Your task to perform on an android device: Search for flights from Tokyo to Seoul Image 0: 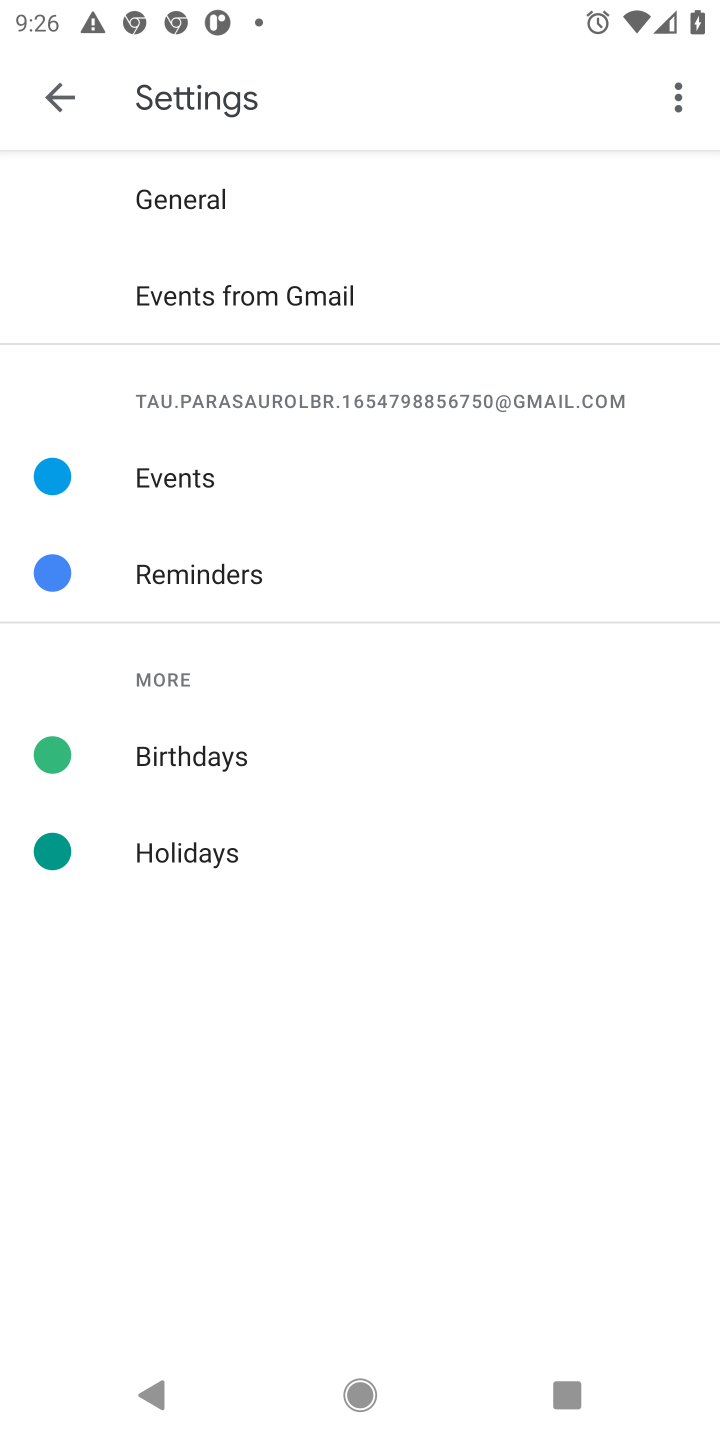
Step 0: press home button
Your task to perform on an android device: Search for flights from Tokyo to Seoul Image 1: 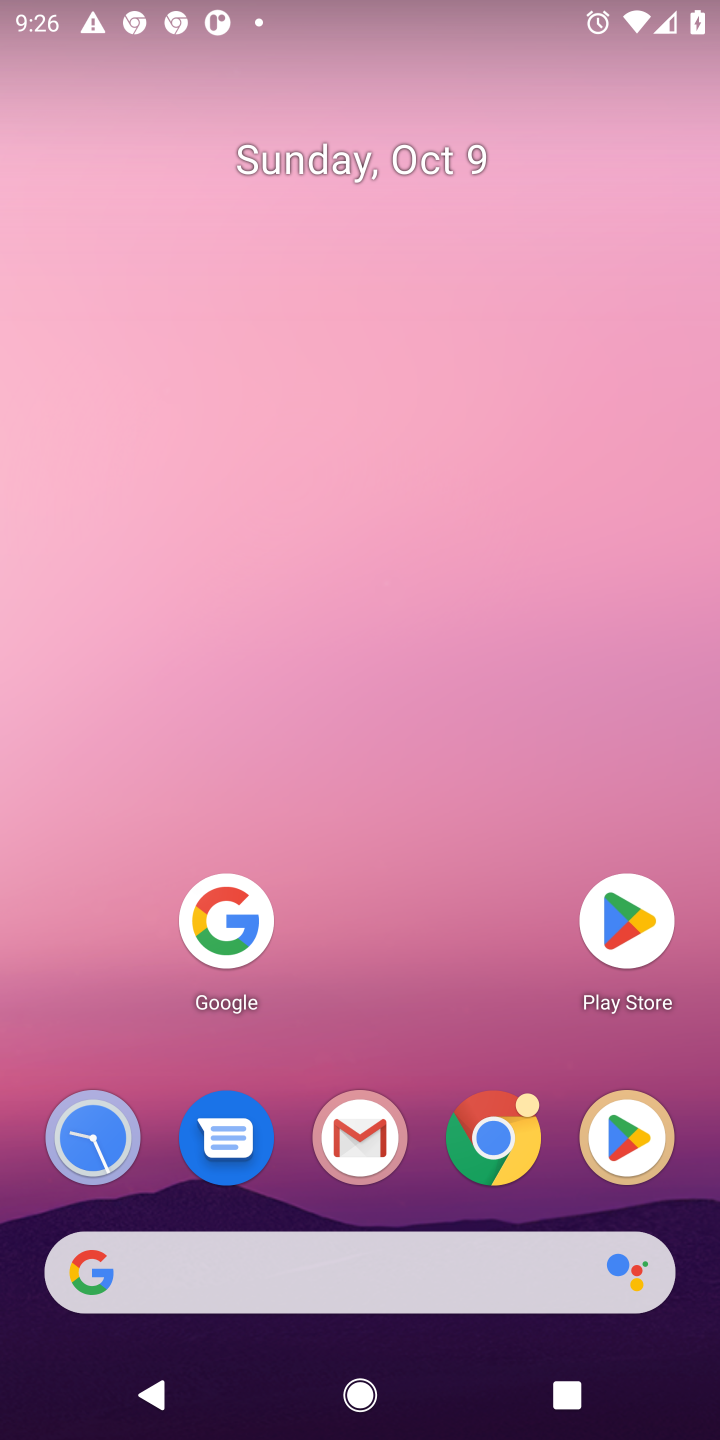
Step 1: click (235, 914)
Your task to perform on an android device: Search for flights from Tokyo to Seoul Image 2: 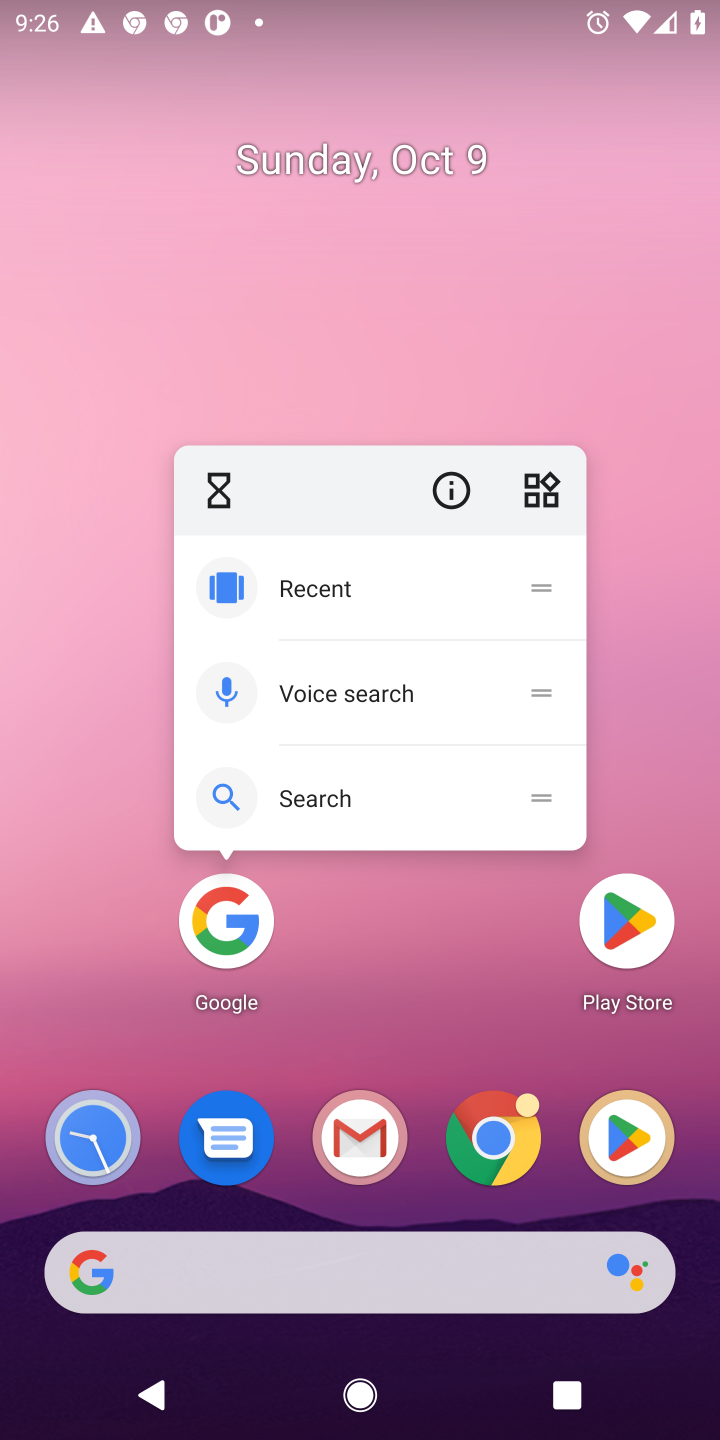
Step 2: click (245, 914)
Your task to perform on an android device: Search for flights from Tokyo to Seoul Image 3: 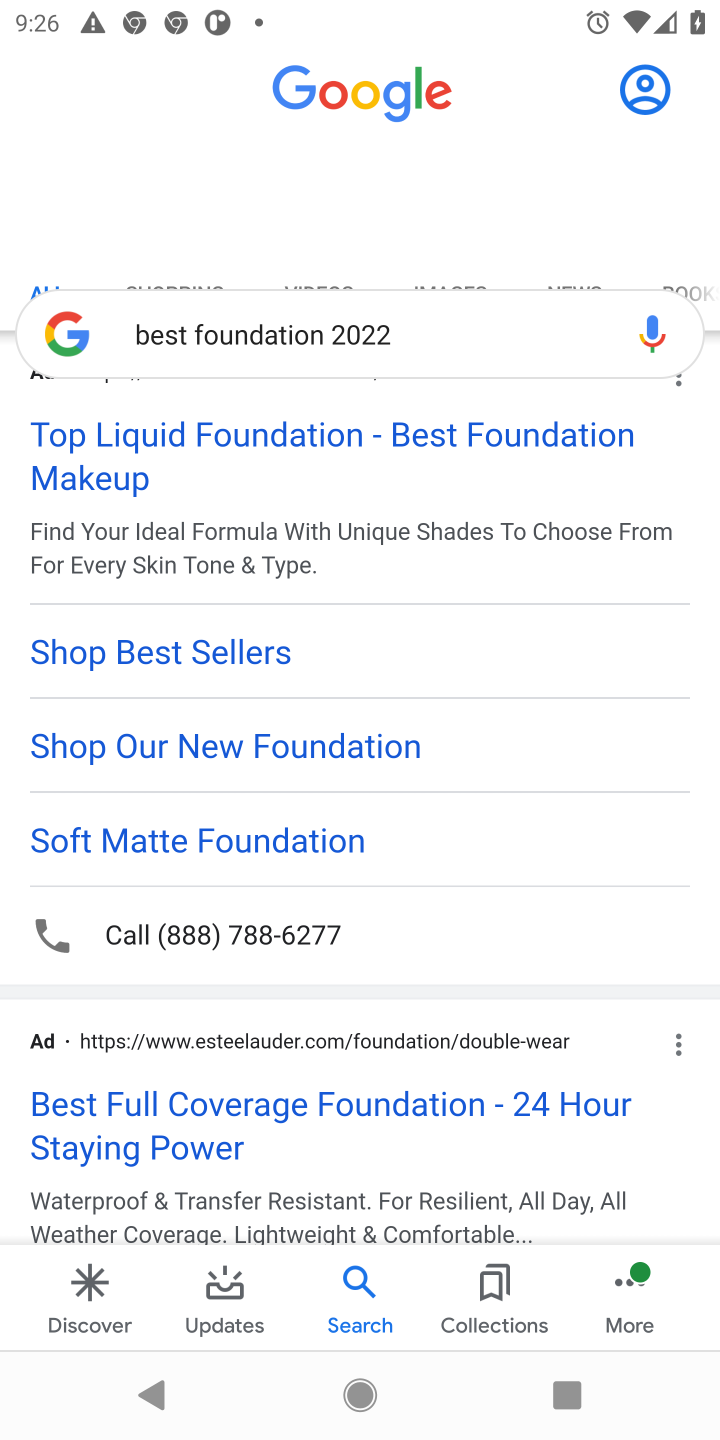
Step 3: click (414, 316)
Your task to perform on an android device: Search for flights from Tokyo to Seoul Image 4: 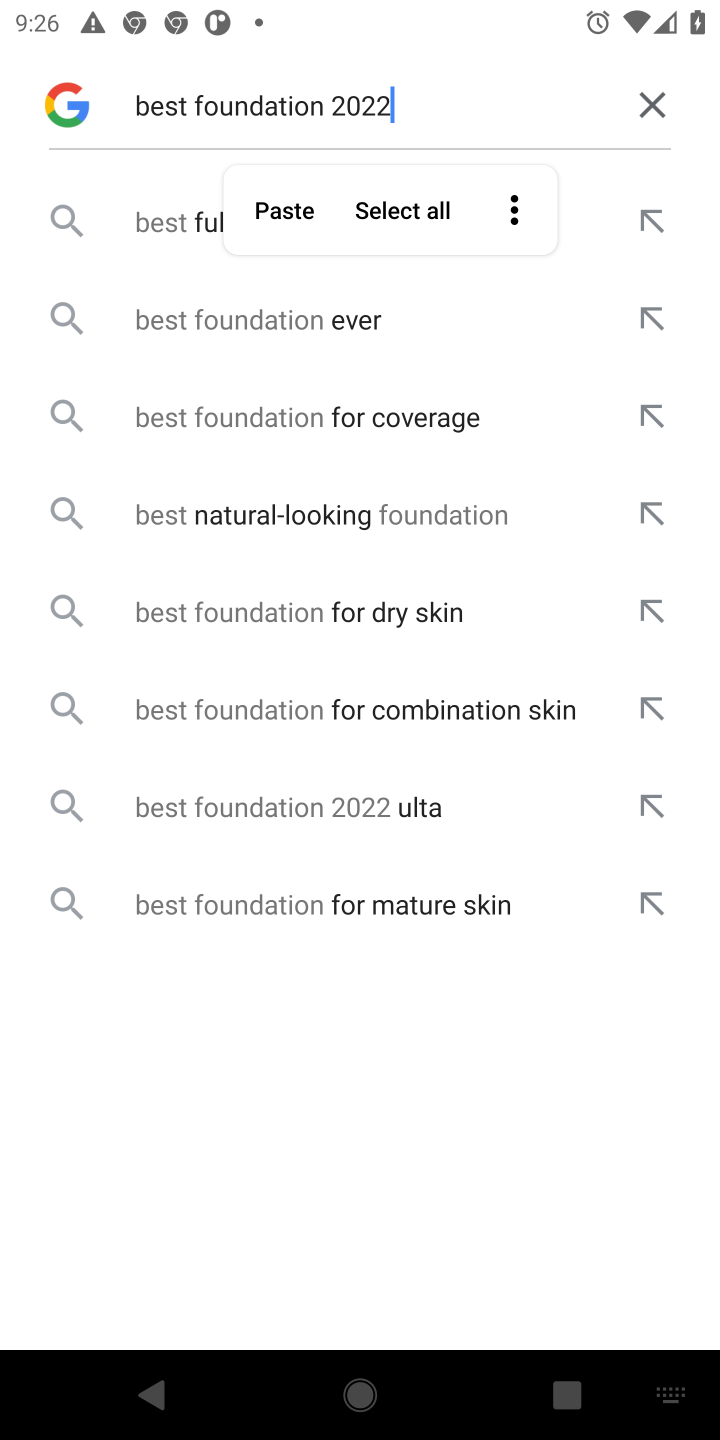
Step 4: click (636, 108)
Your task to perform on an android device: Search for flights from Tokyo to Seoul Image 5: 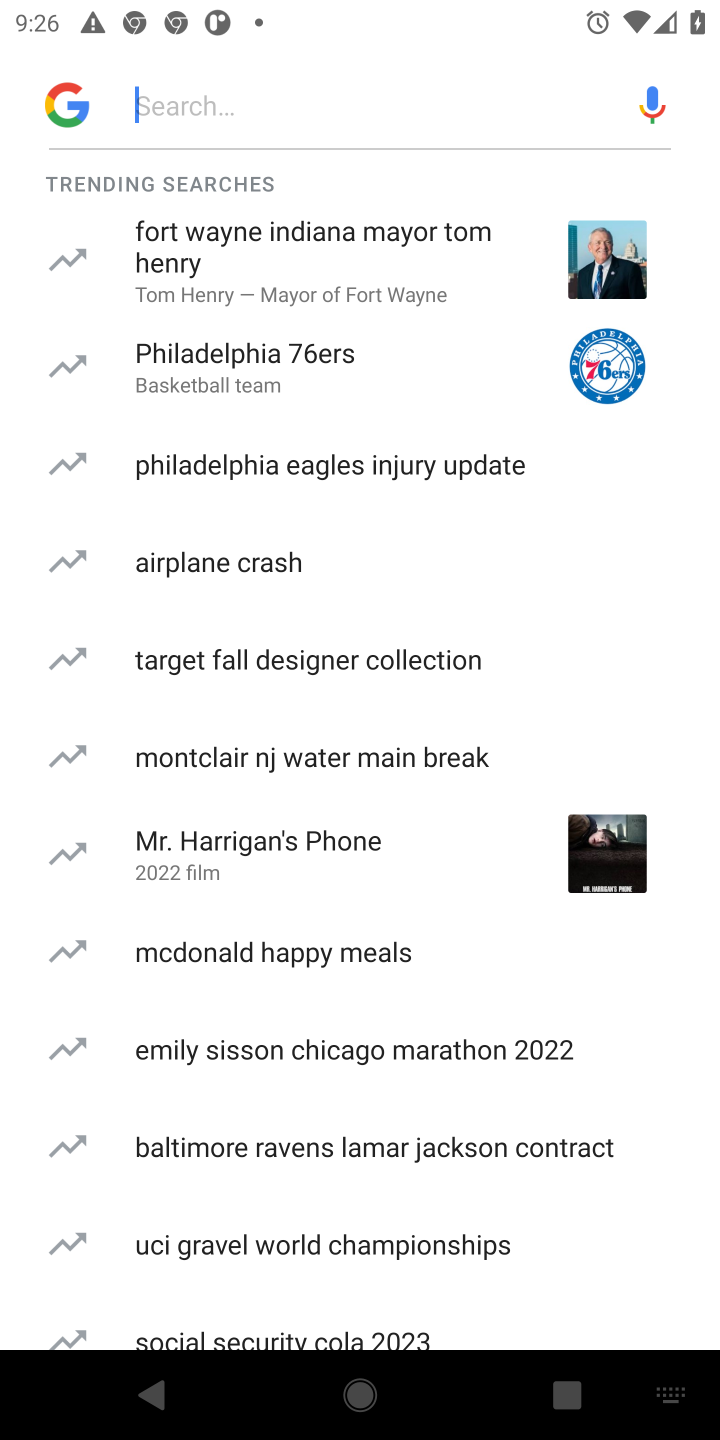
Step 5: click (349, 75)
Your task to perform on an android device: Search for flights from Tokyo to Seoul Image 6: 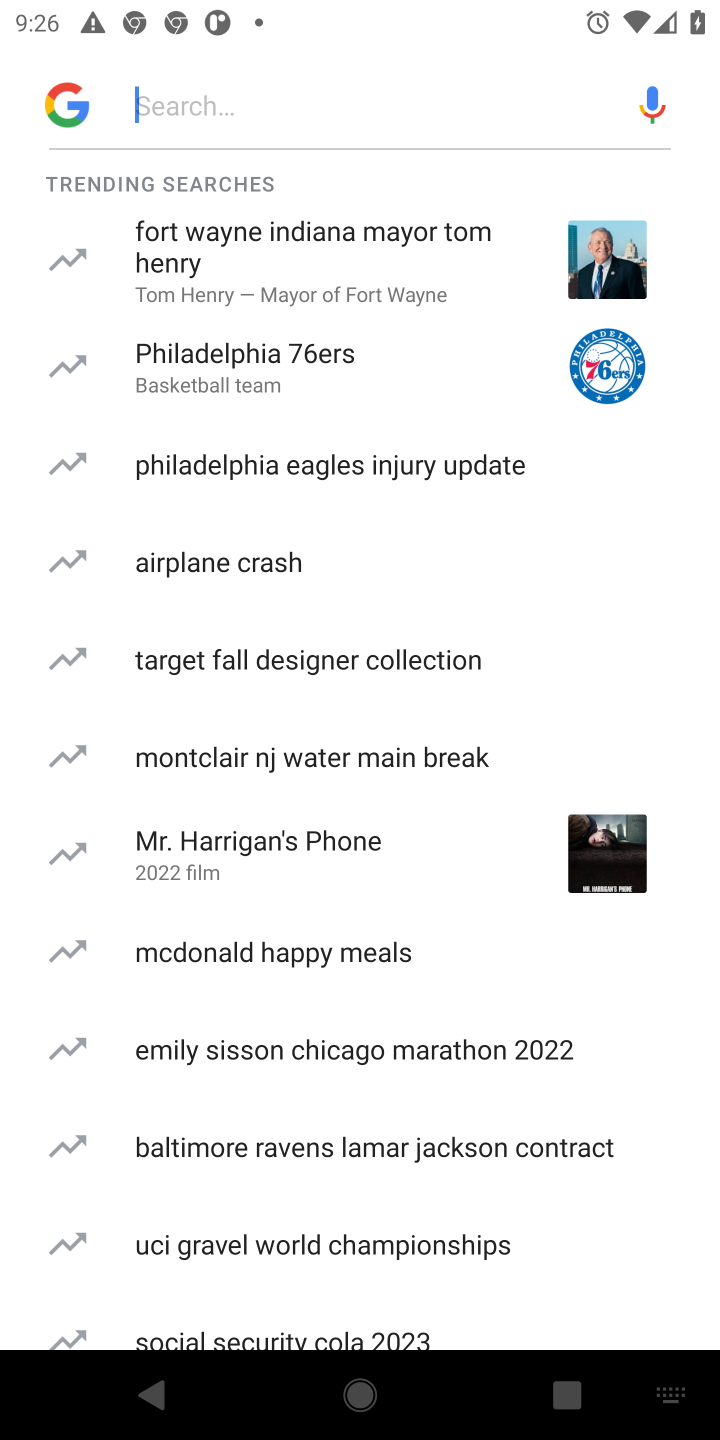
Step 6: type "Search for flights from Tokyo to Seoul "
Your task to perform on an android device: Search for flights from Tokyo to Seoul Image 7: 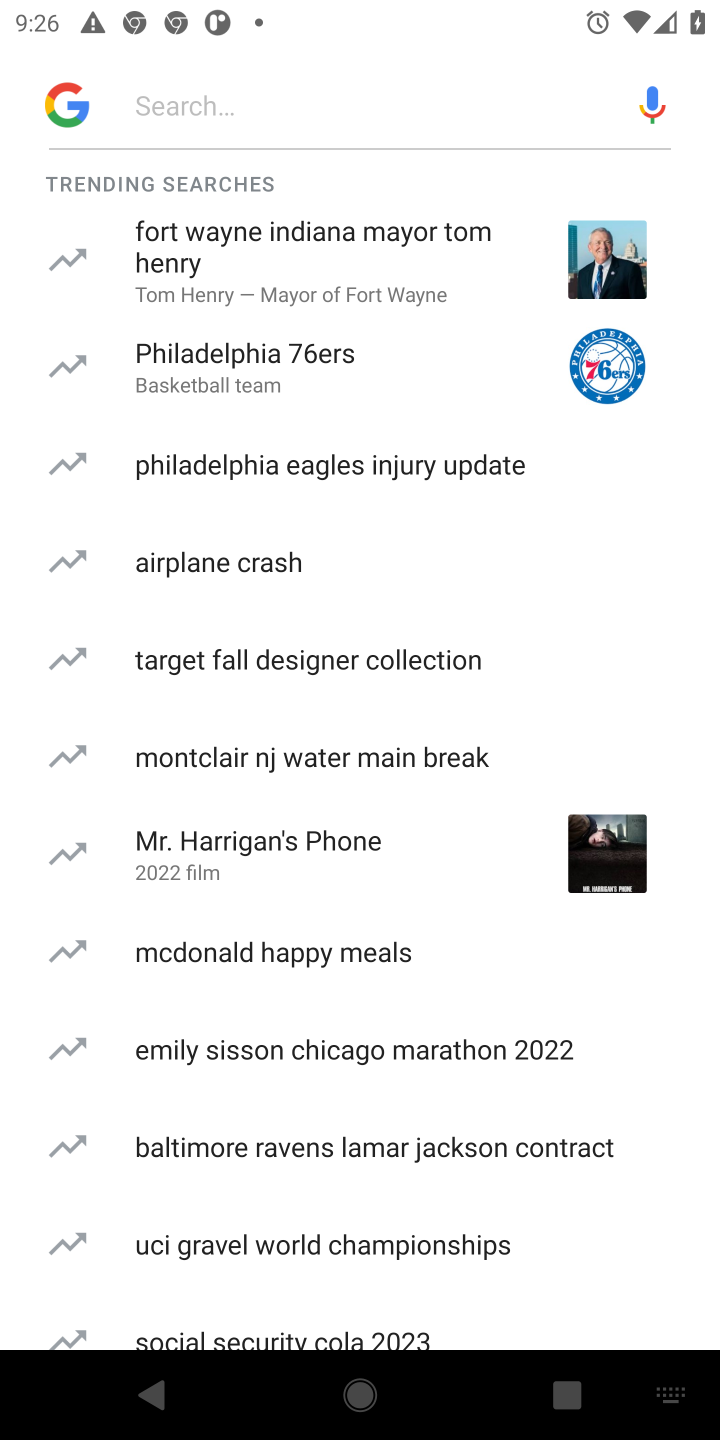
Step 7: click (288, 89)
Your task to perform on an android device: Search for flights from Tokyo to Seoul Image 8: 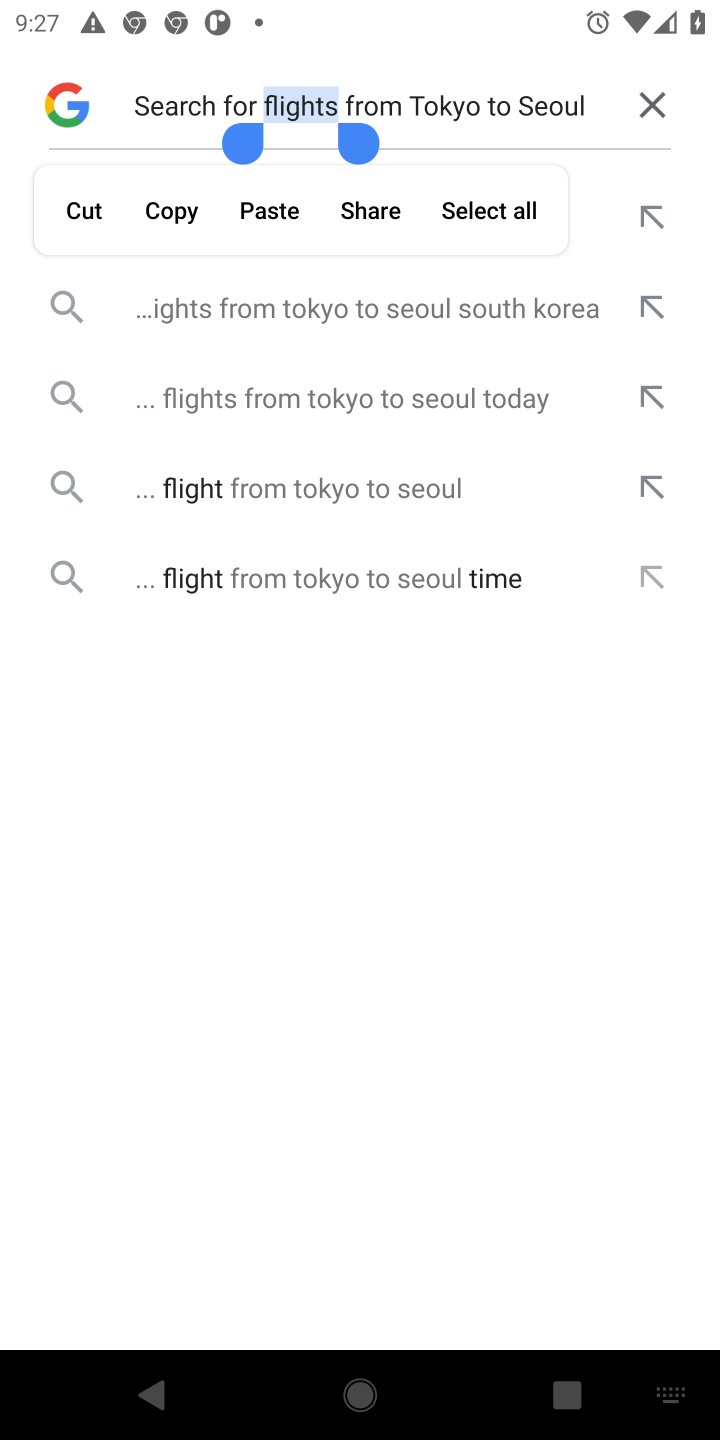
Step 8: click (249, 317)
Your task to perform on an android device: Search for flights from Tokyo to Seoul Image 9: 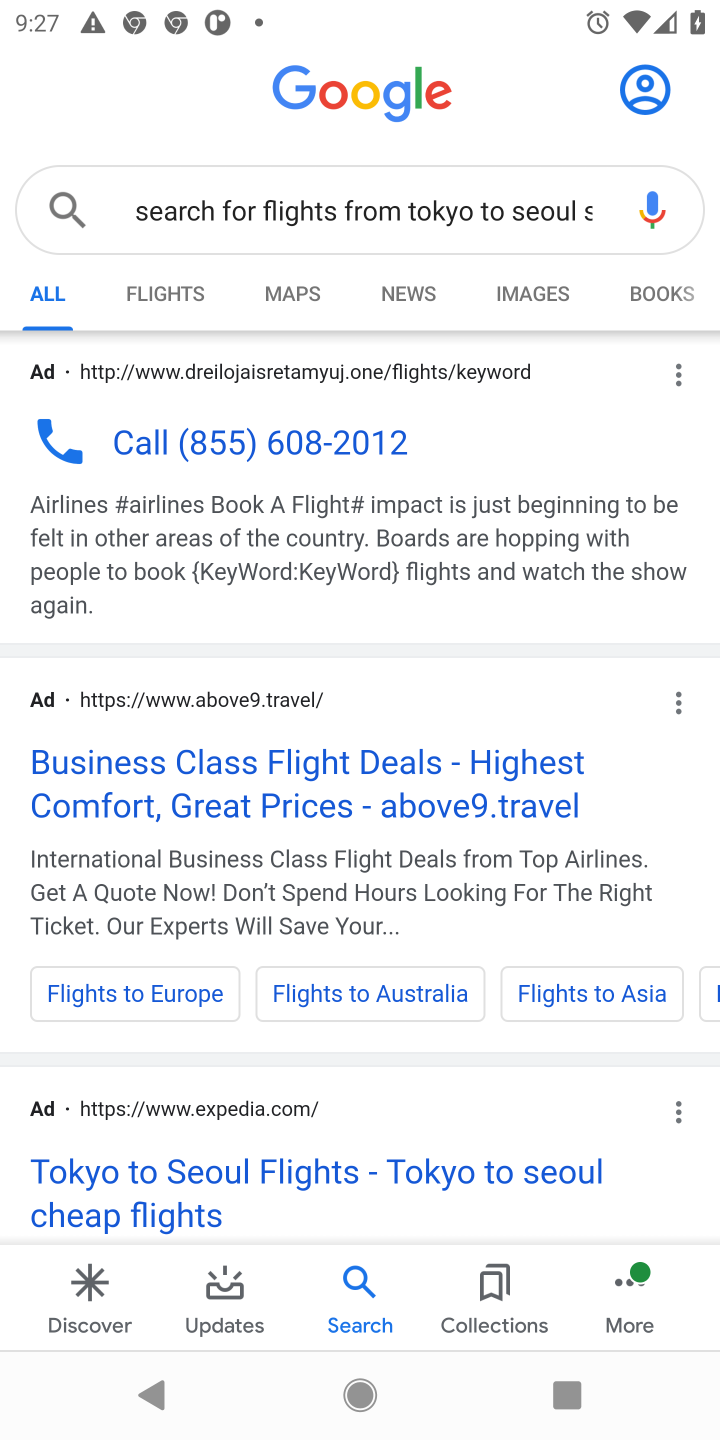
Step 9: click (247, 769)
Your task to perform on an android device: Search for flights from Tokyo to Seoul Image 10: 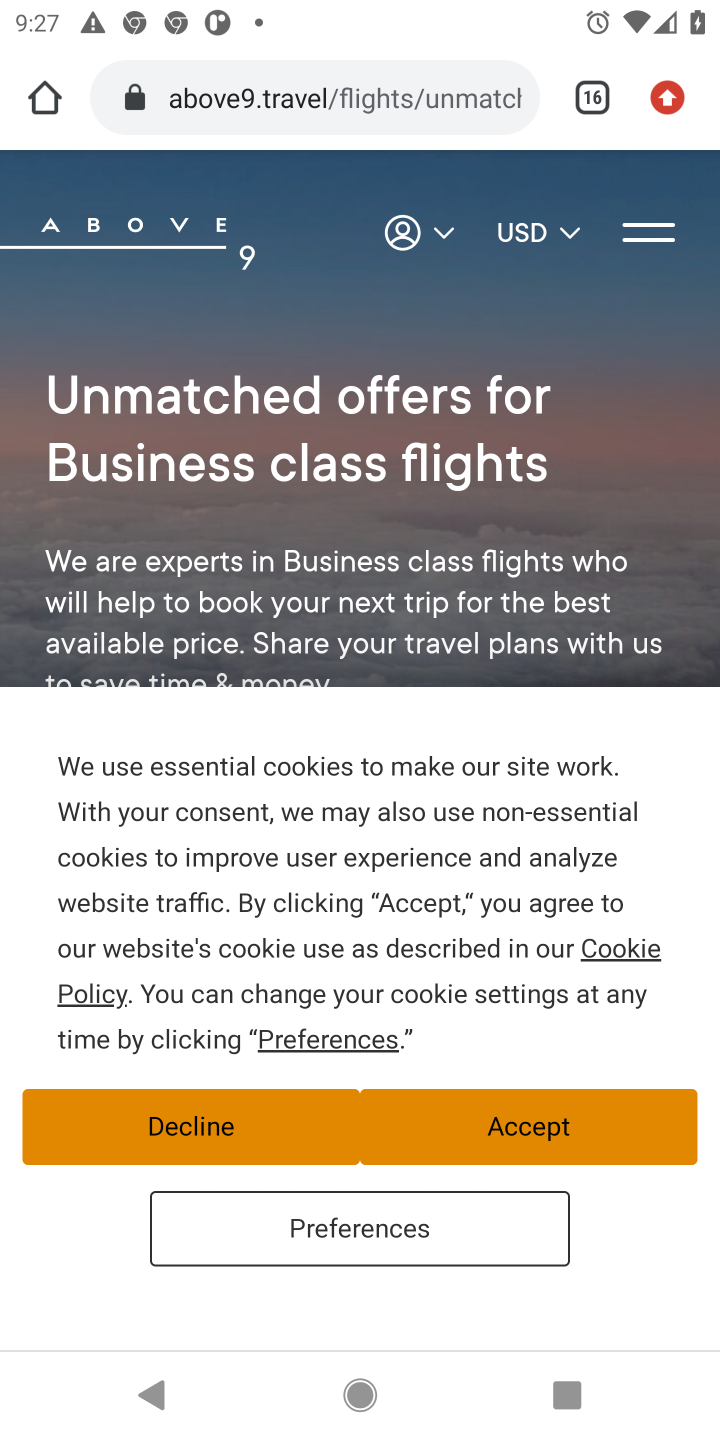
Step 10: click (554, 1136)
Your task to perform on an android device: Search for flights from Tokyo to Seoul Image 11: 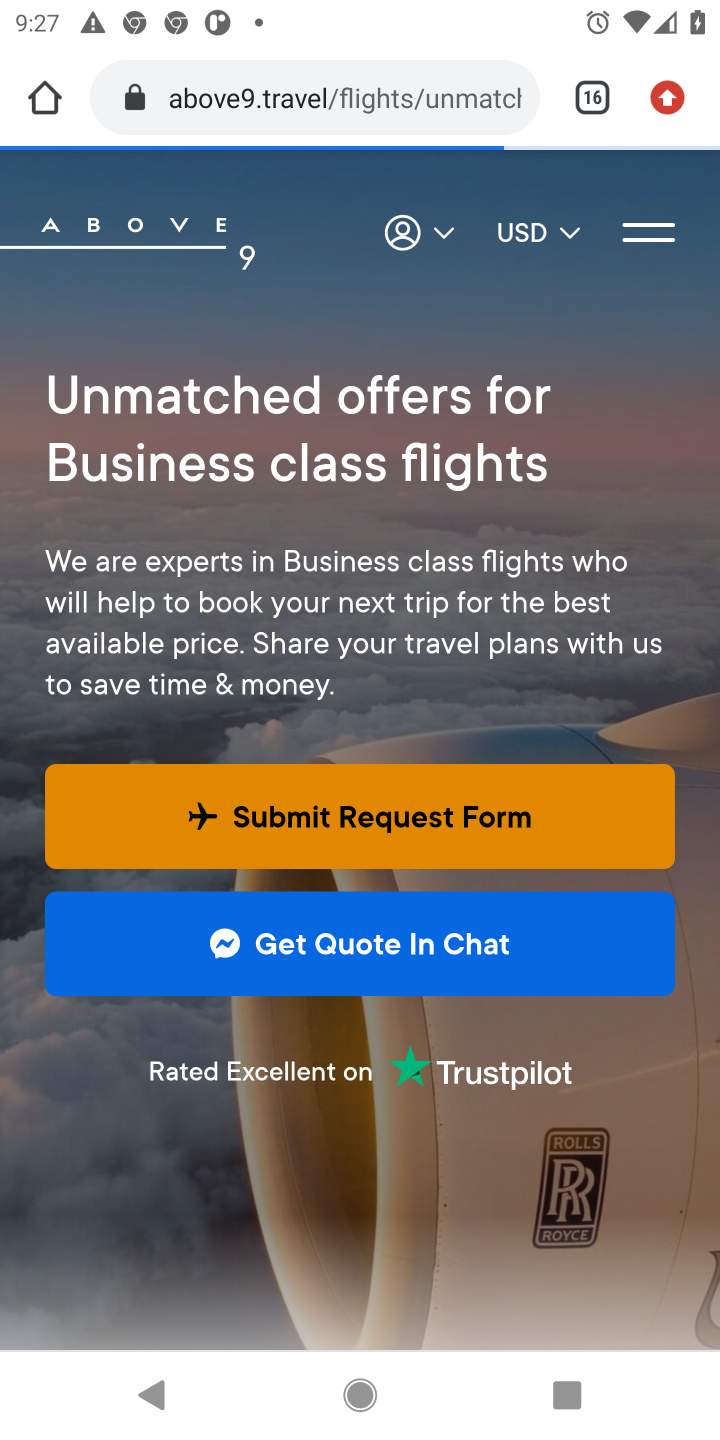
Step 11: drag from (466, 1166) to (531, 306)
Your task to perform on an android device: Search for flights from Tokyo to Seoul Image 12: 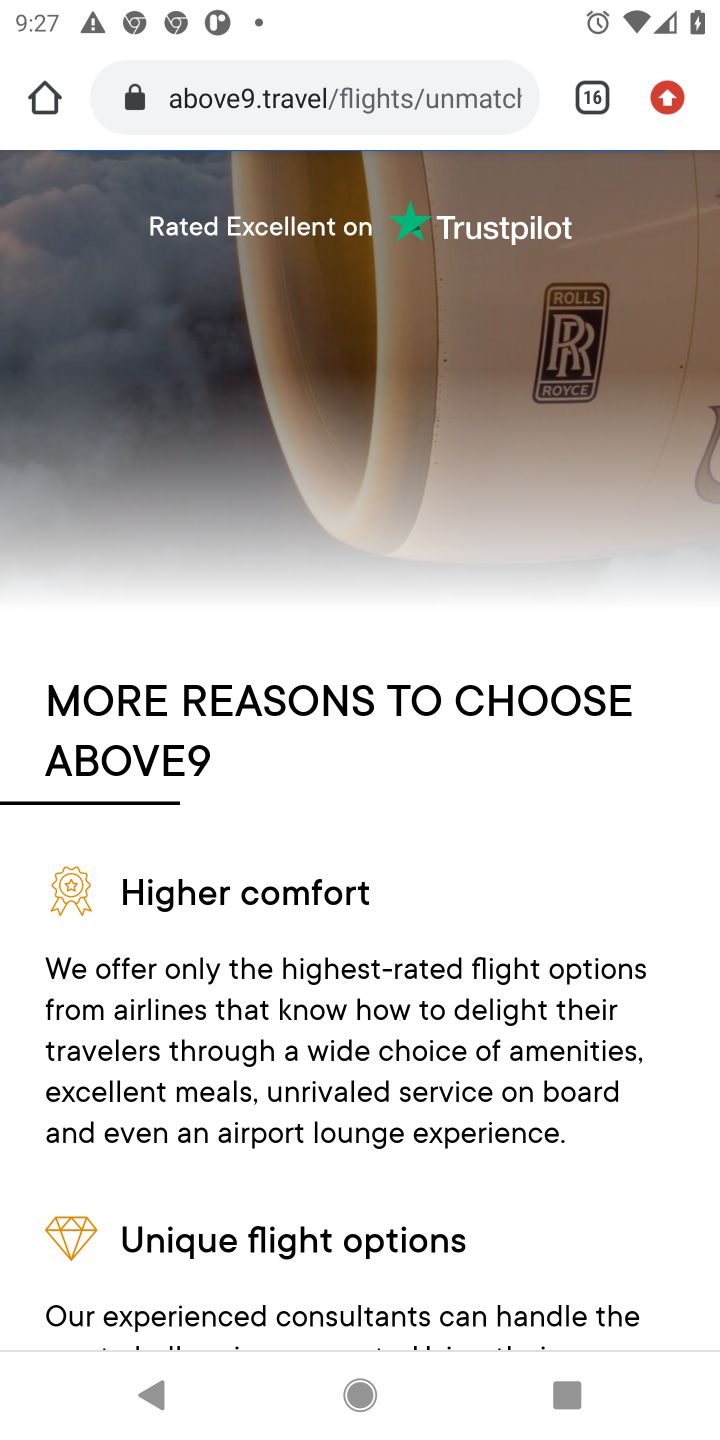
Step 12: press back button
Your task to perform on an android device: Search for flights from Tokyo to Seoul Image 13: 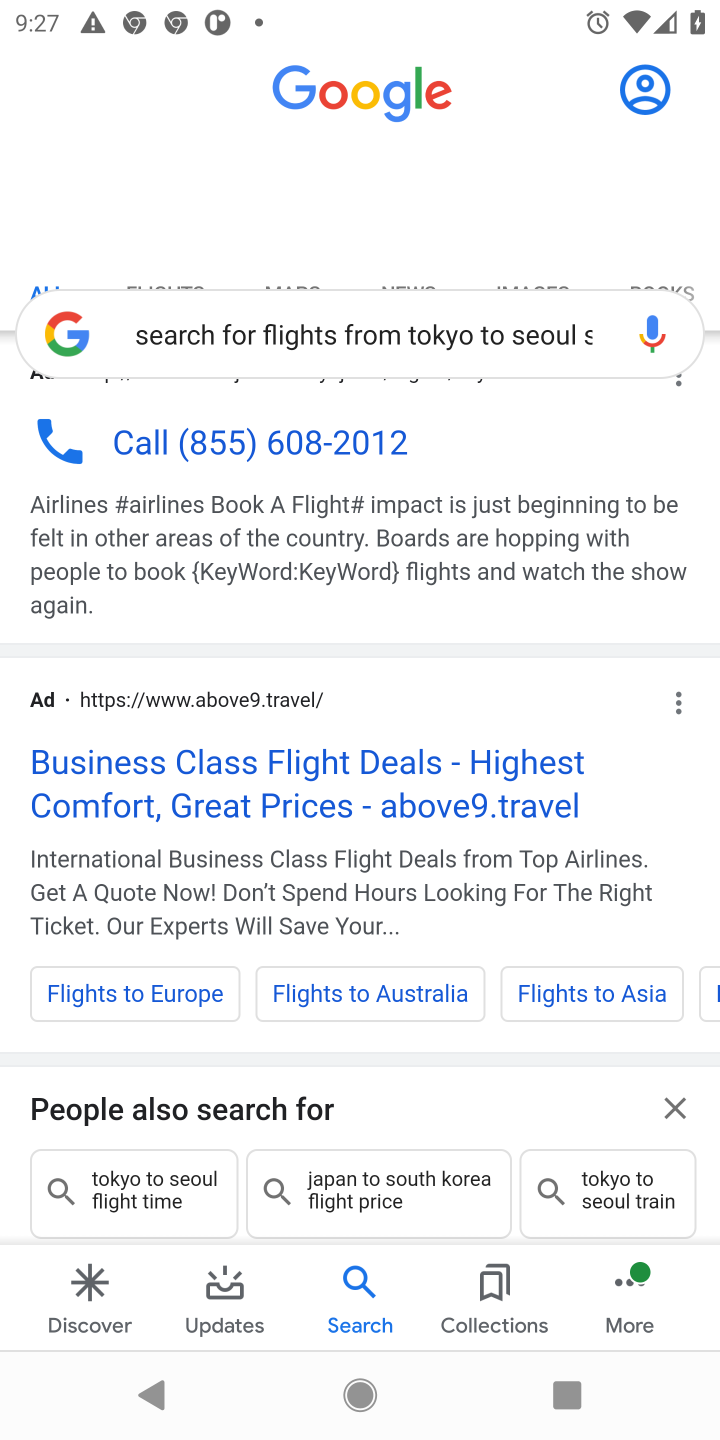
Step 13: drag from (297, 1038) to (394, 281)
Your task to perform on an android device: Search for flights from Tokyo to Seoul Image 14: 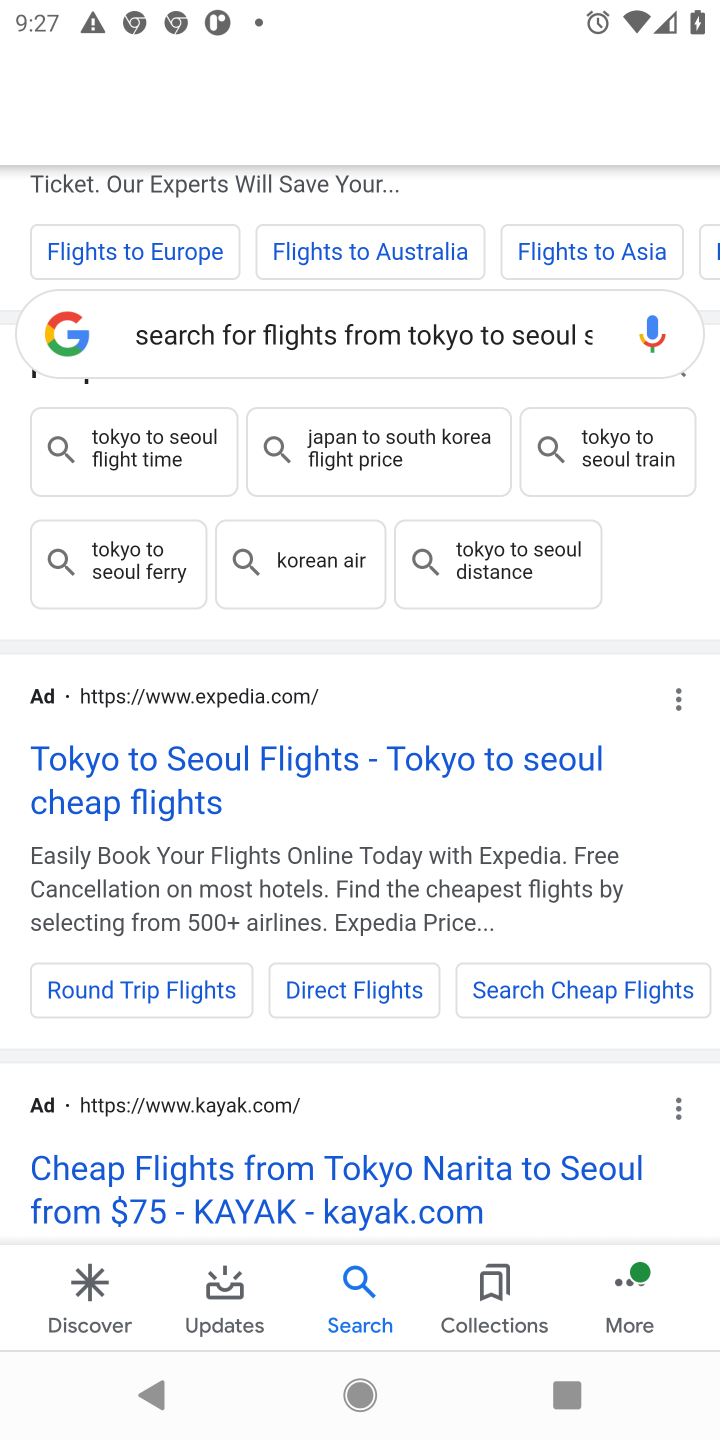
Step 14: click (339, 759)
Your task to perform on an android device: Search for flights from Tokyo to Seoul Image 15: 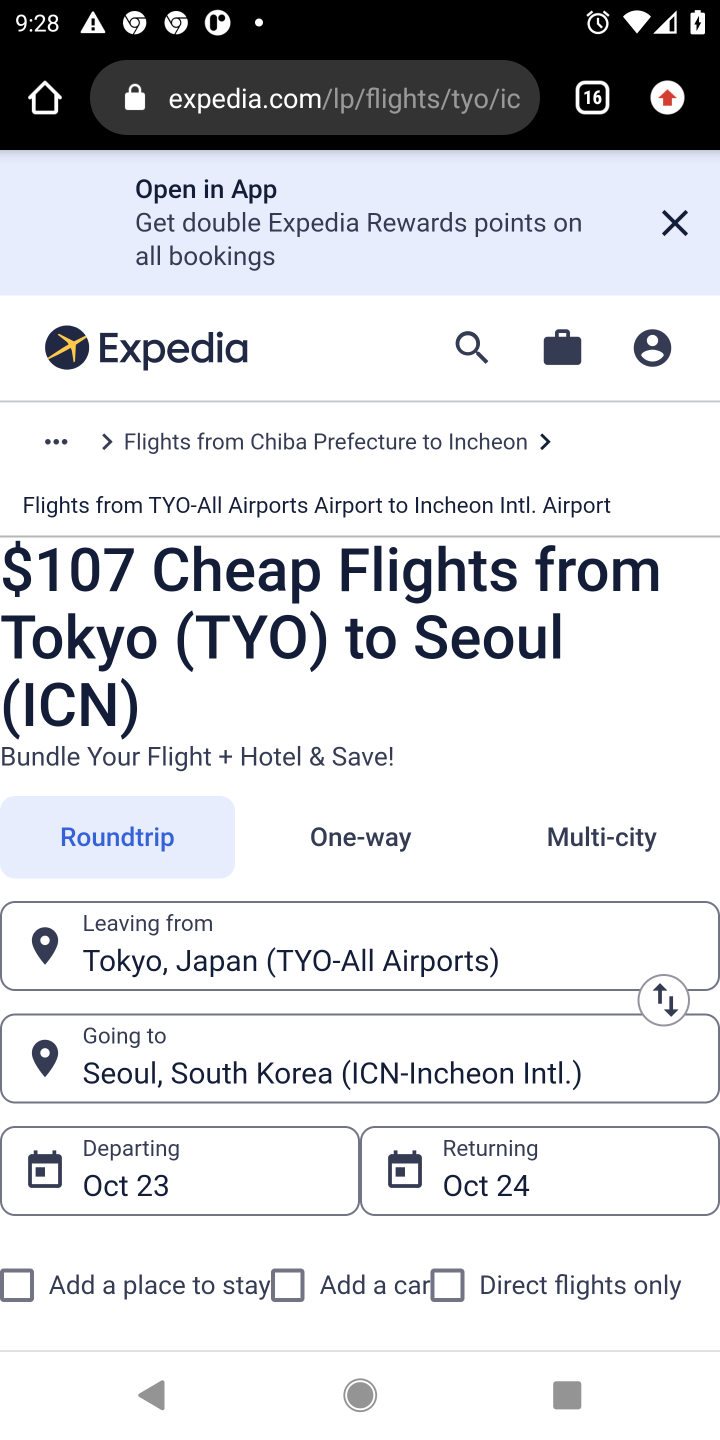
Step 15: task complete